Your task to perform on an android device: open app "Contacts" (install if not already installed) Image 0: 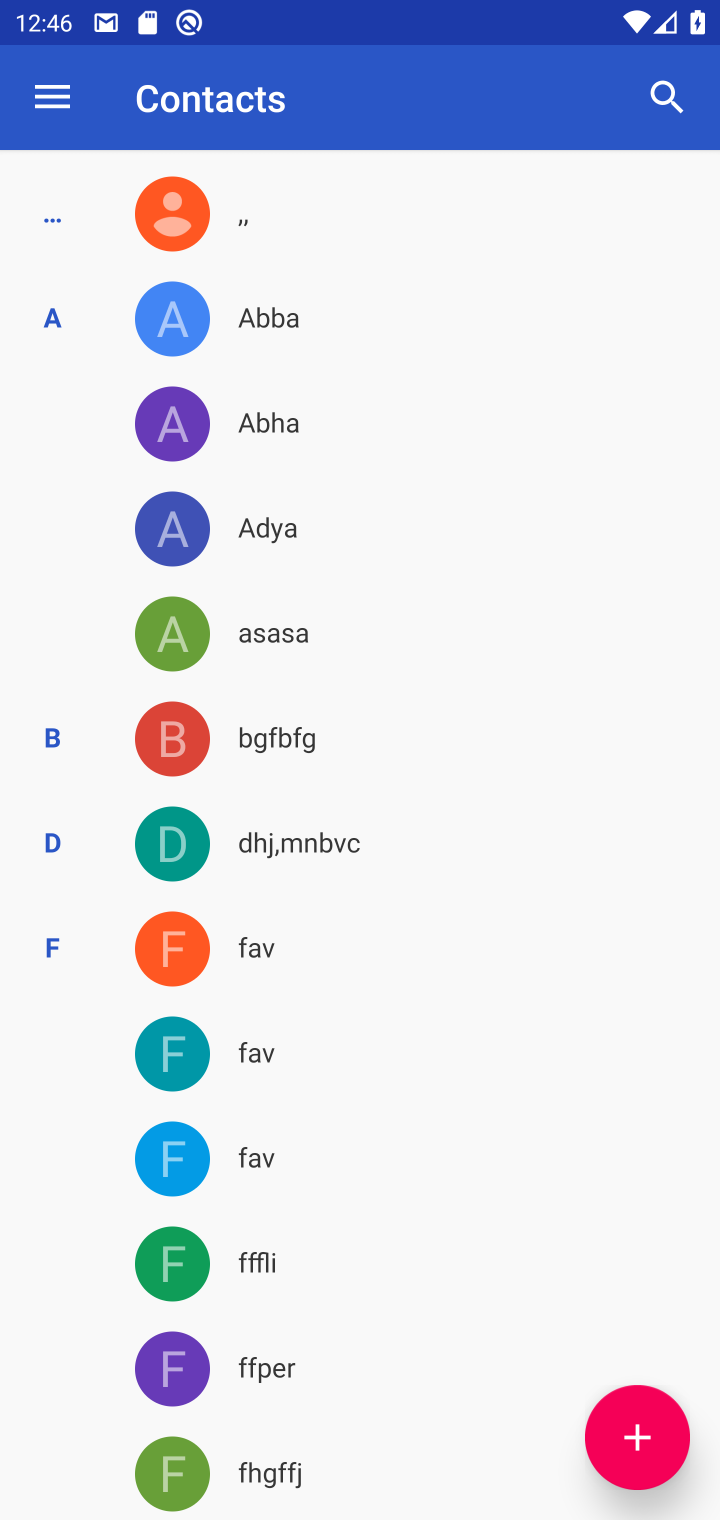
Step 0: press home button
Your task to perform on an android device: open app "Contacts" (install if not already installed) Image 1: 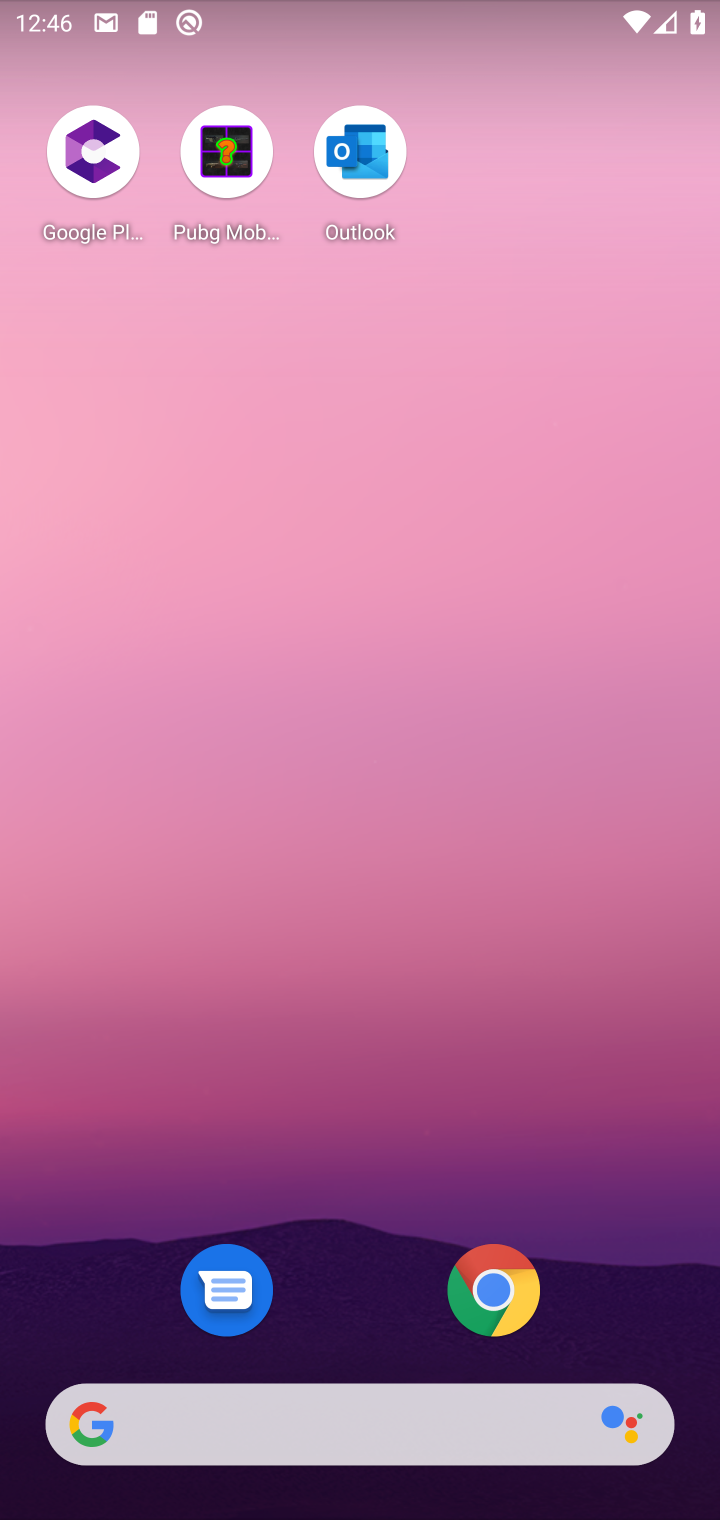
Step 1: drag from (335, 1328) to (300, 109)
Your task to perform on an android device: open app "Contacts" (install if not already installed) Image 2: 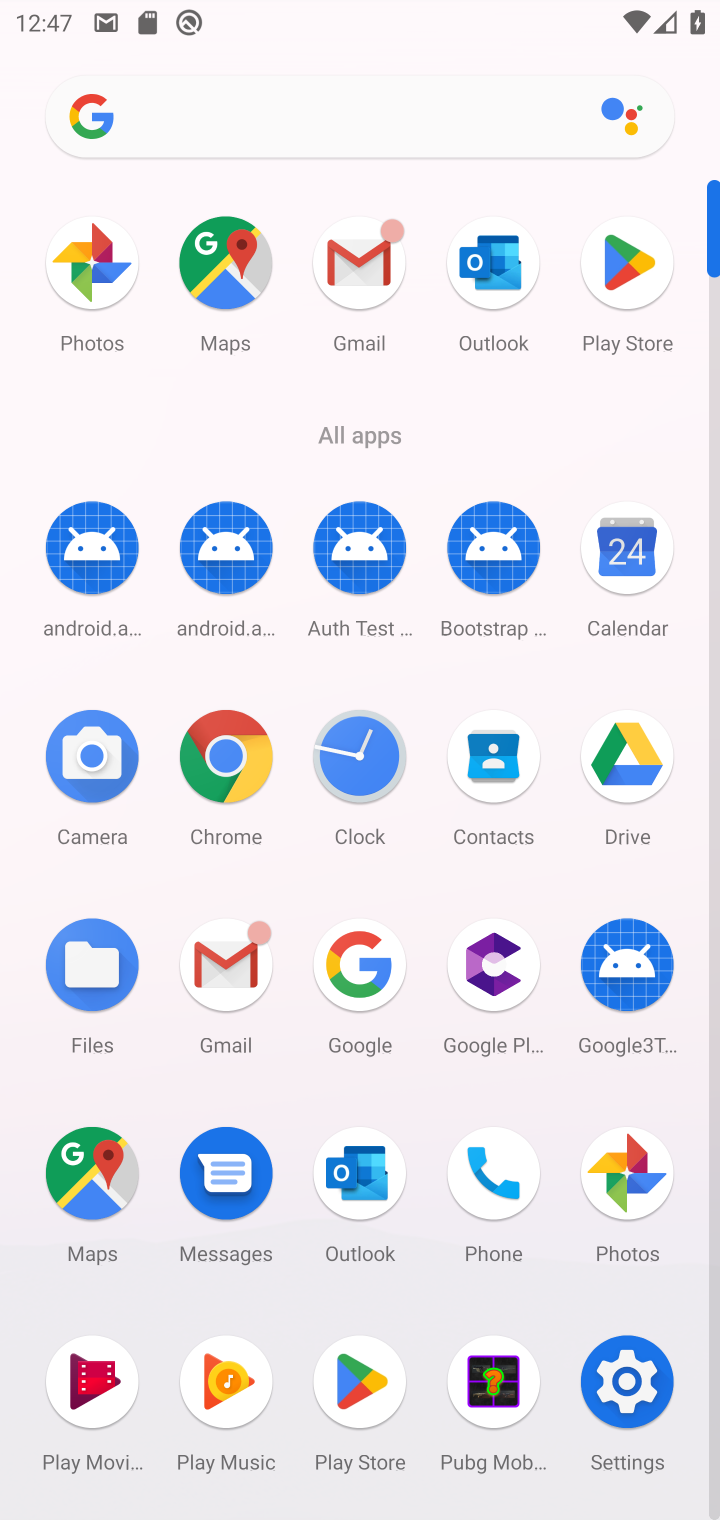
Step 2: click (616, 274)
Your task to perform on an android device: open app "Contacts" (install if not already installed) Image 3: 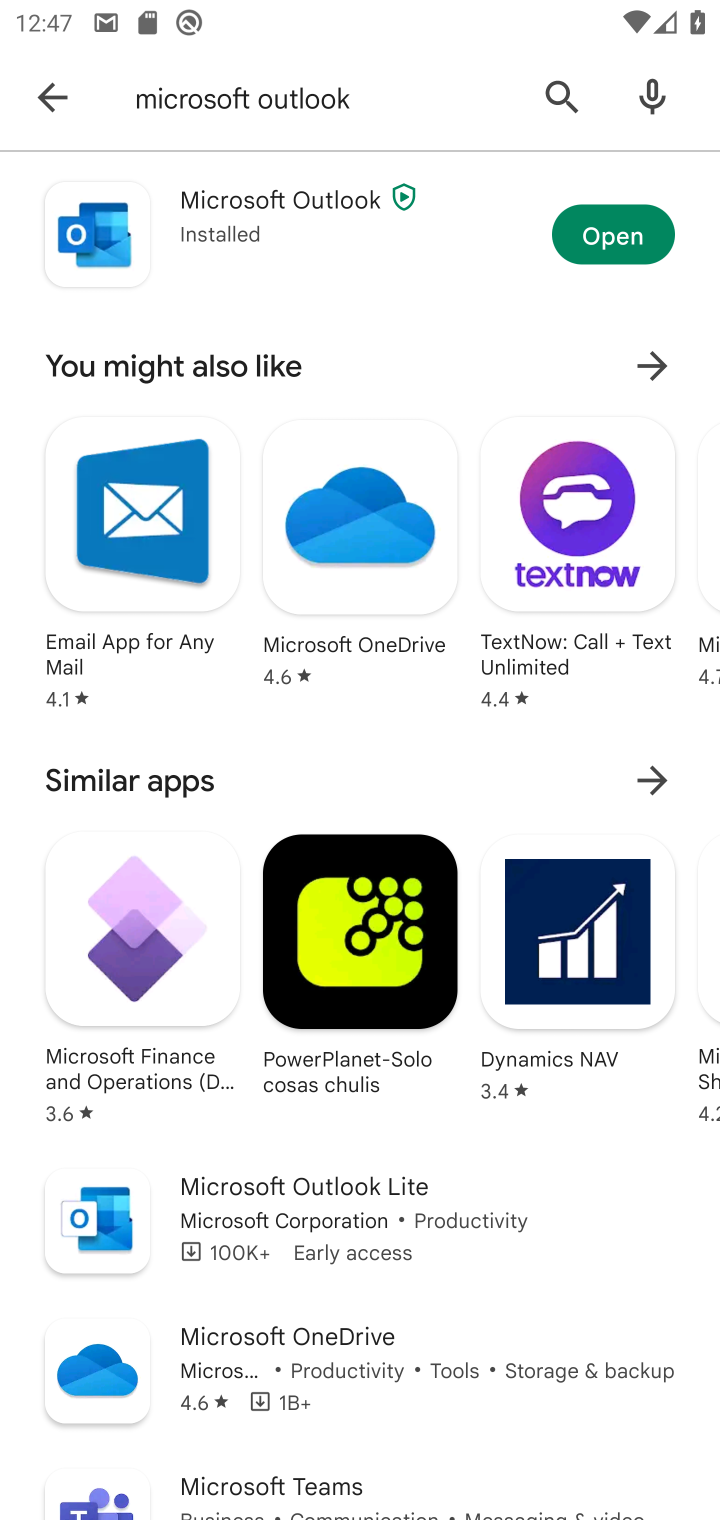
Step 3: click (54, 87)
Your task to perform on an android device: open app "Contacts" (install if not already installed) Image 4: 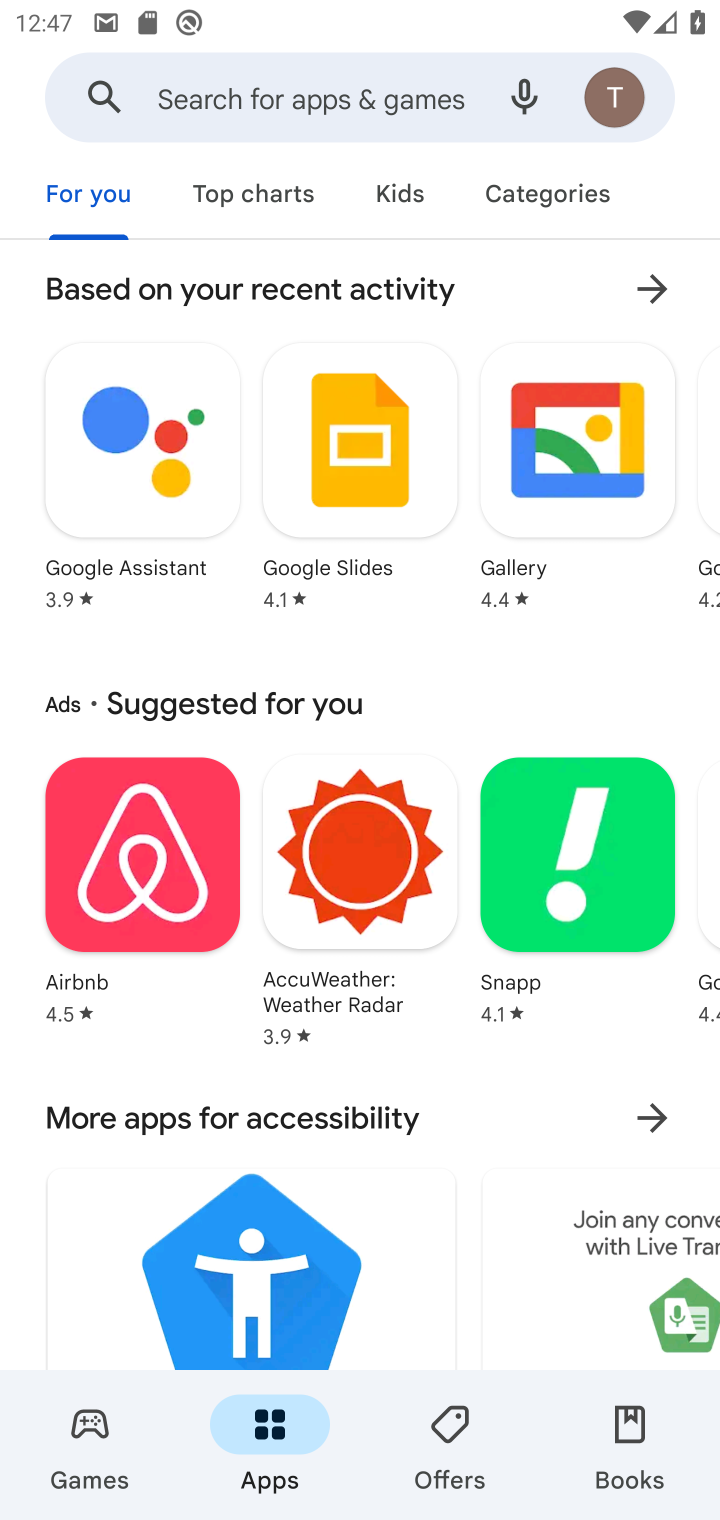
Step 4: click (231, 92)
Your task to perform on an android device: open app "Contacts" (install if not already installed) Image 5: 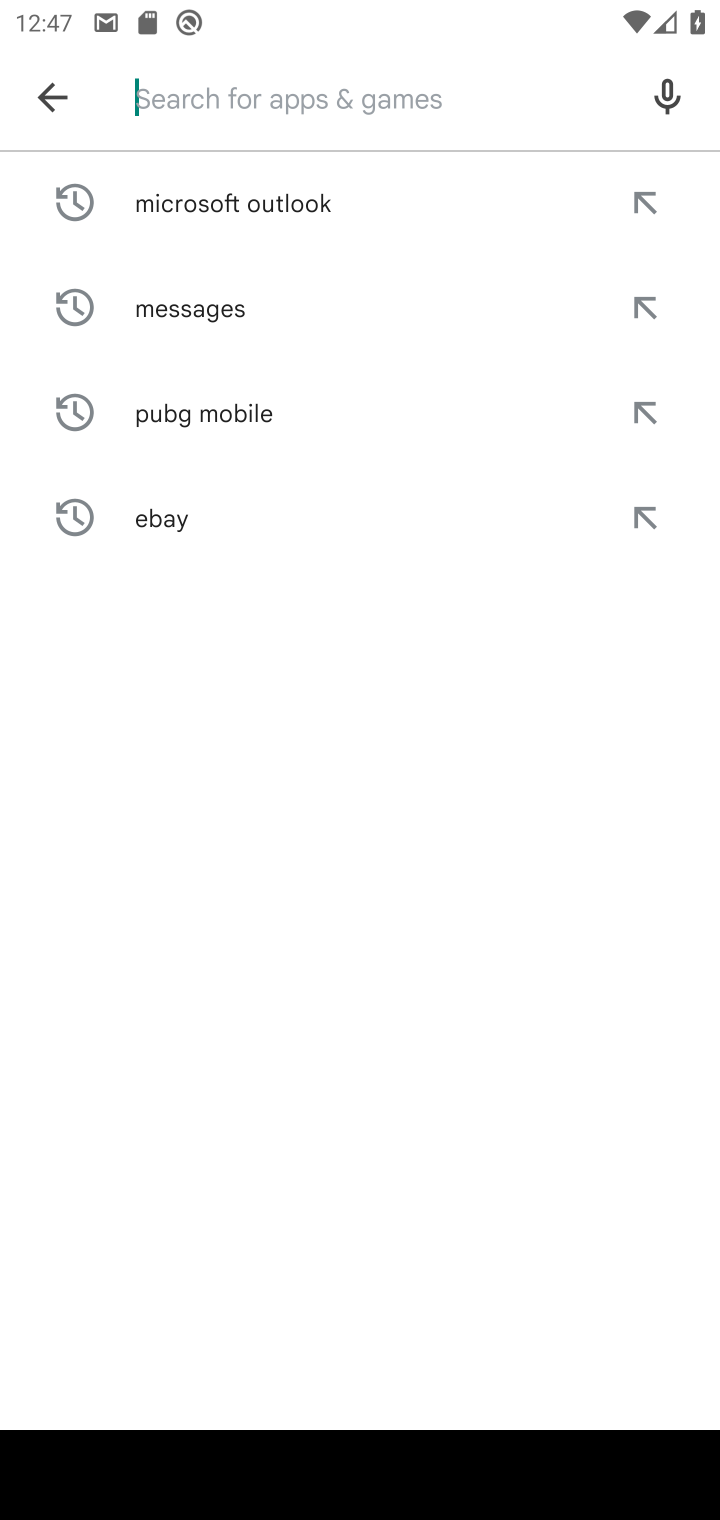
Step 5: type "Contacts"
Your task to perform on an android device: open app "Contacts" (install if not already installed) Image 6: 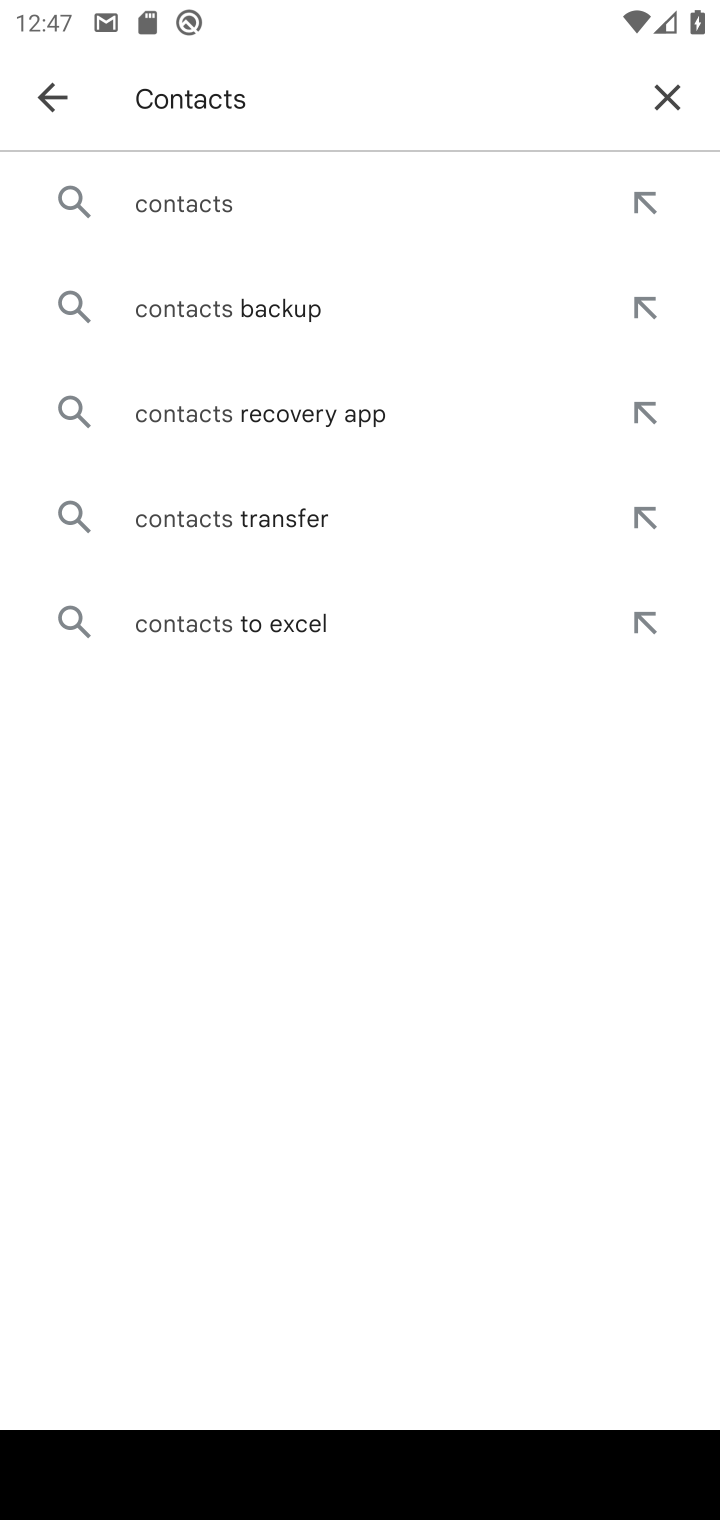
Step 6: click (170, 202)
Your task to perform on an android device: open app "Contacts" (install if not already installed) Image 7: 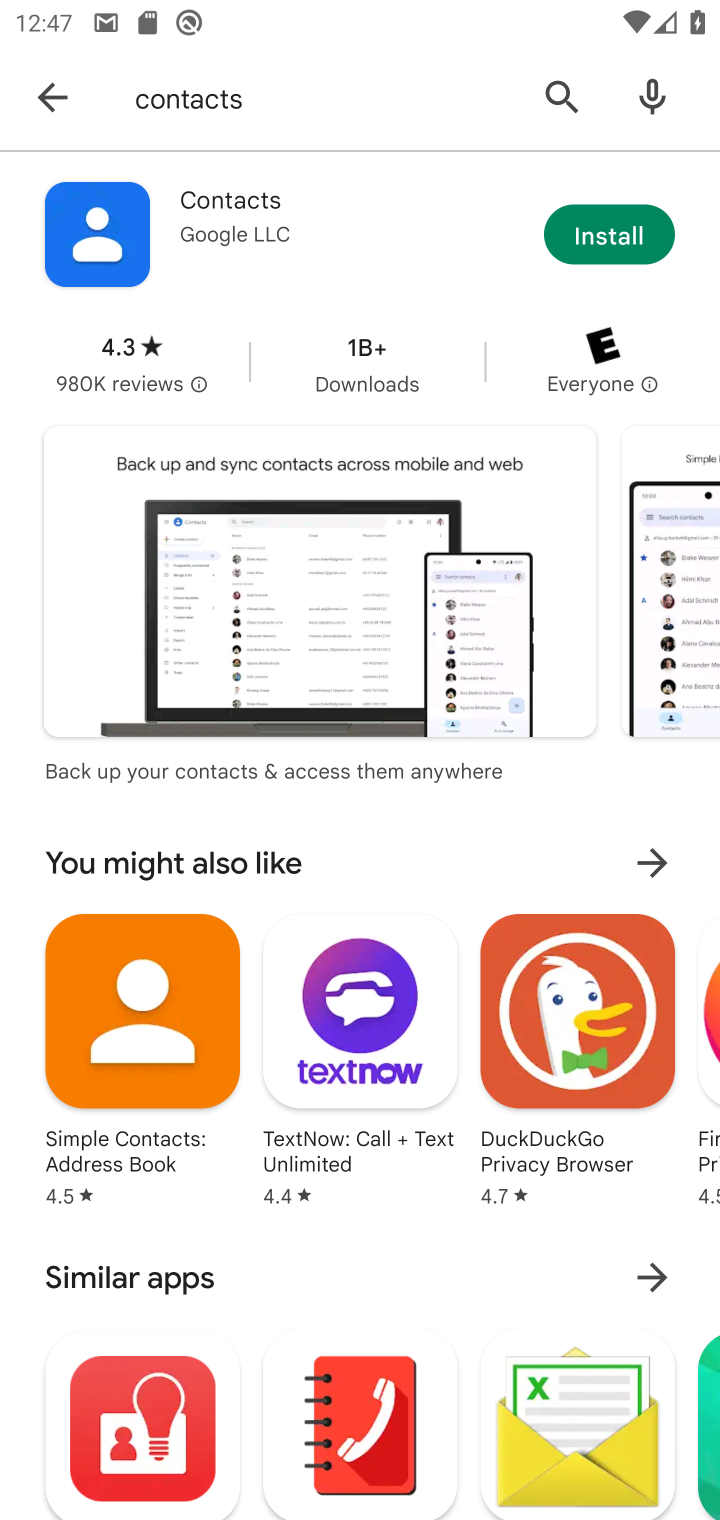
Step 7: click (610, 228)
Your task to perform on an android device: open app "Contacts" (install if not already installed) Image 8: 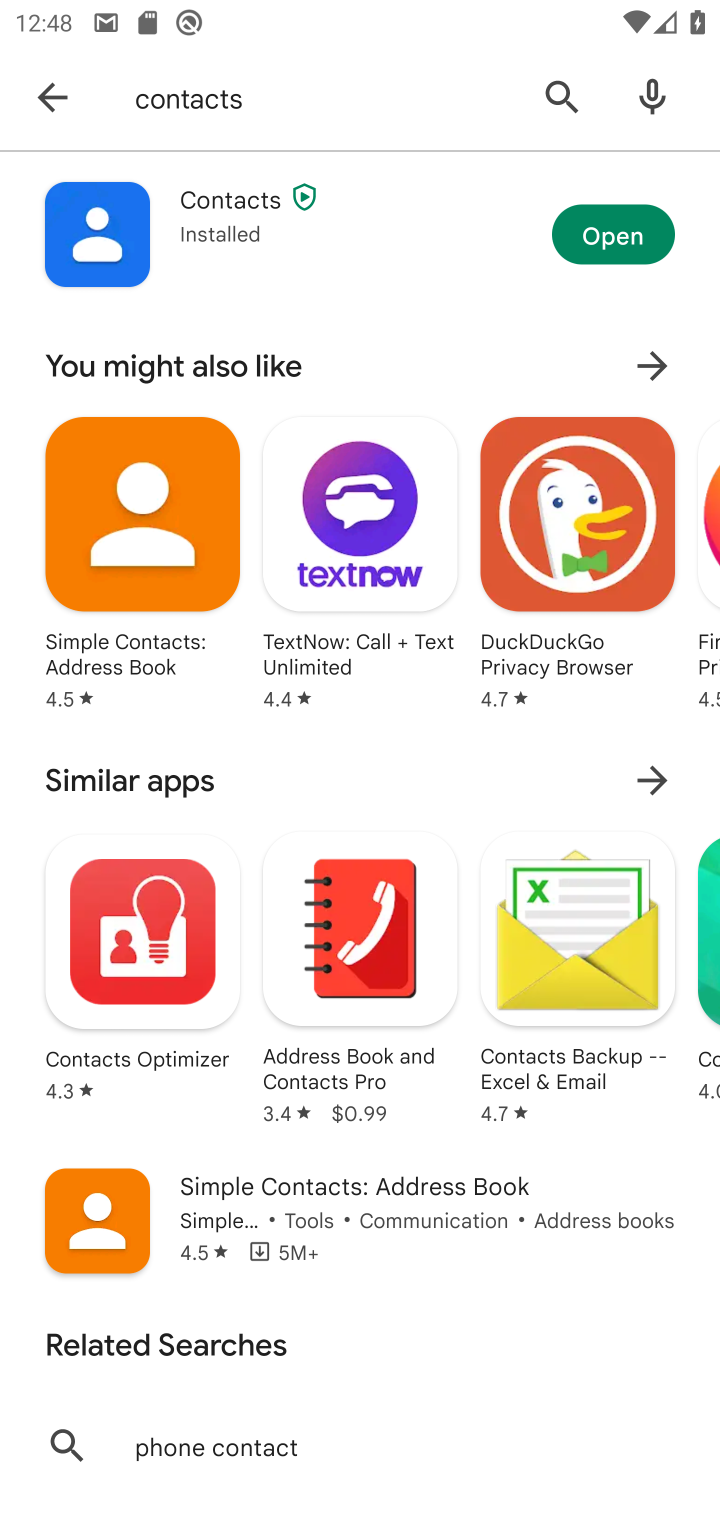
Step 8: click (616, 251)
Your task to perform on an android device: open app "Contacts" (install if not already installed) Image 9: 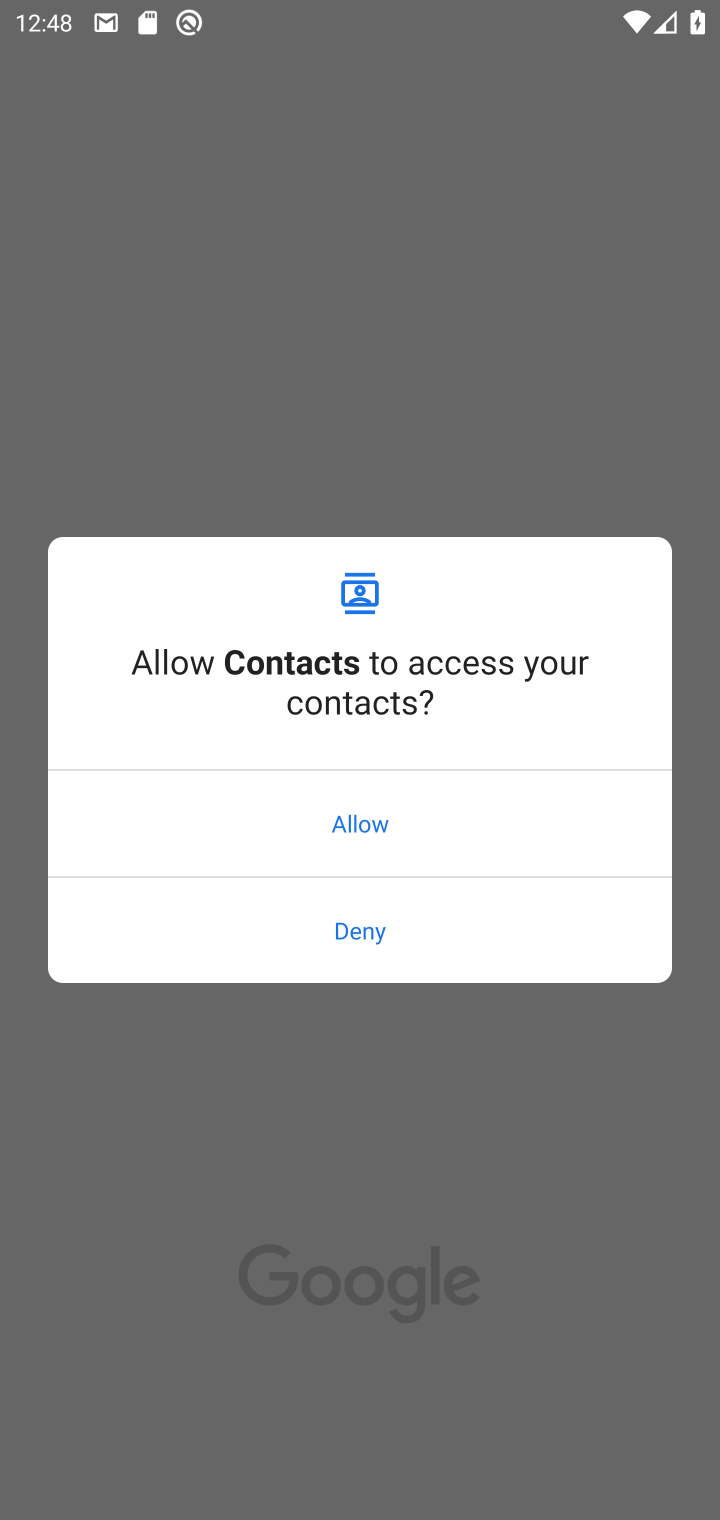
Step 9: task complete